Your task to perform on an android device: Search for vegetarian restaurants on Maps Image 0: 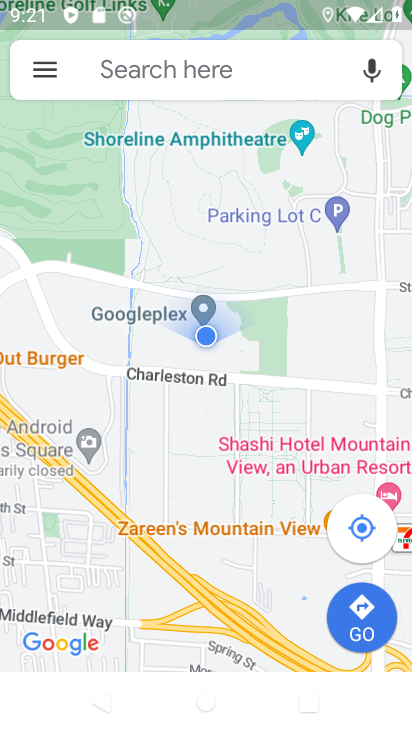
Step 0: click (203, 75)
Your task to perform on an android device: Search for vegetarian restaurants on Maps Image 1: 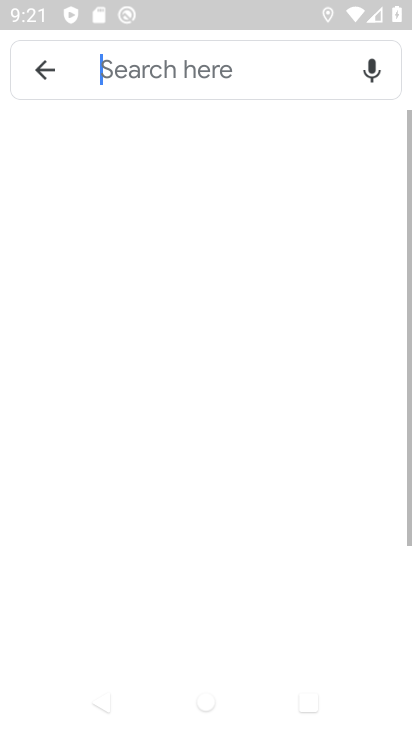
Step 1: click (202, 70)
Your task to perform on an android device: Search for vegetarian restaurants on Maps Image 2: 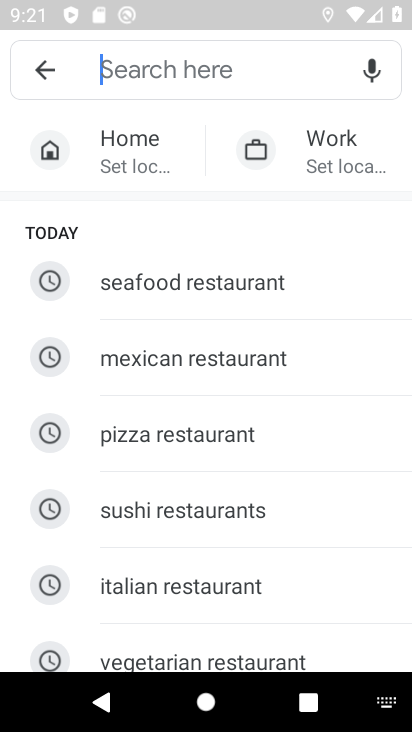
Step 2: click (247, 661)
Your task to perform on an android device: Search for vegetarian restaurants on Maps Image 3: 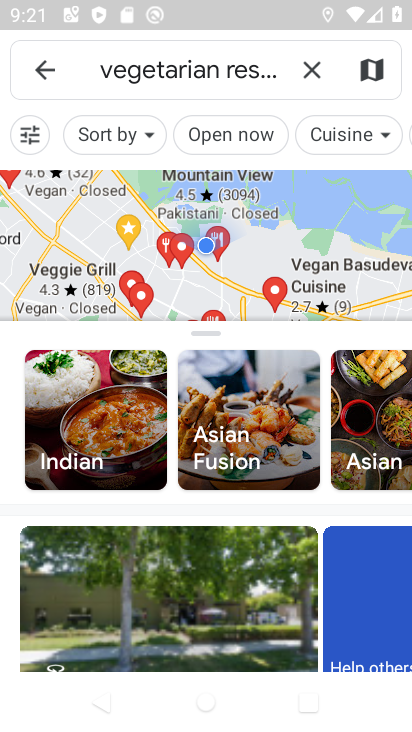
Step 3: task complete